Your task to perform on an android device: turn off sleep mode Image 0: 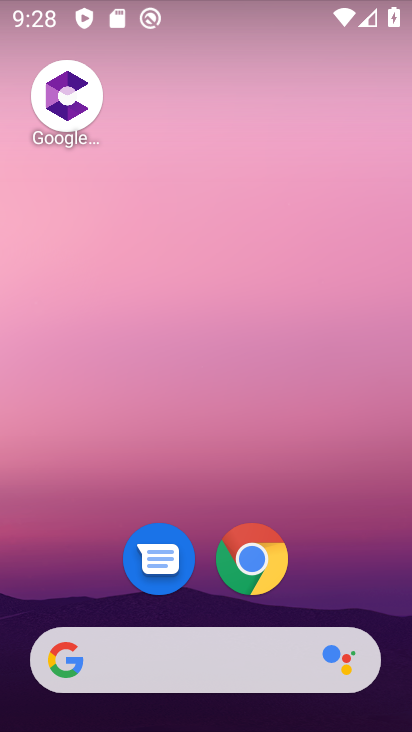
Step 0: drag from (57, 606) to (218, 106)
Your task to perform on an android device: turn off sleep mode Image 1: 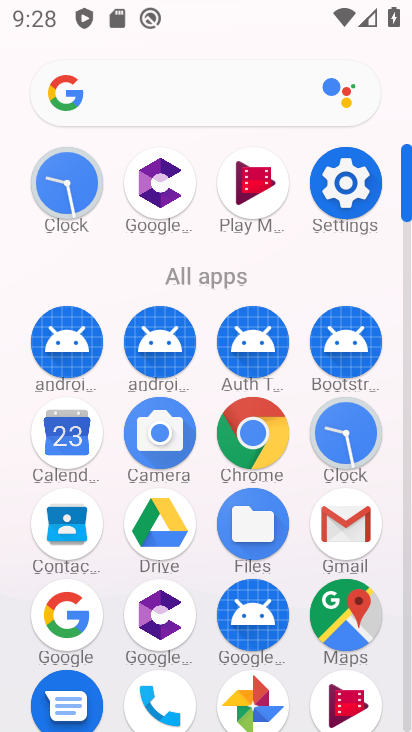
Step 1: drag from (165, 660) to (218, 272)
Your task to perform on an android device: turn off sleep mode Image 2: 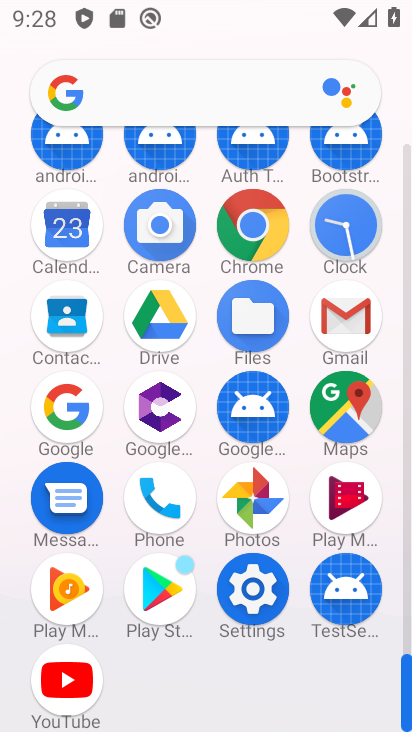
Step 2: click (246, 587)
Your task to perform on an android device: turn off sleep mode Image 3: 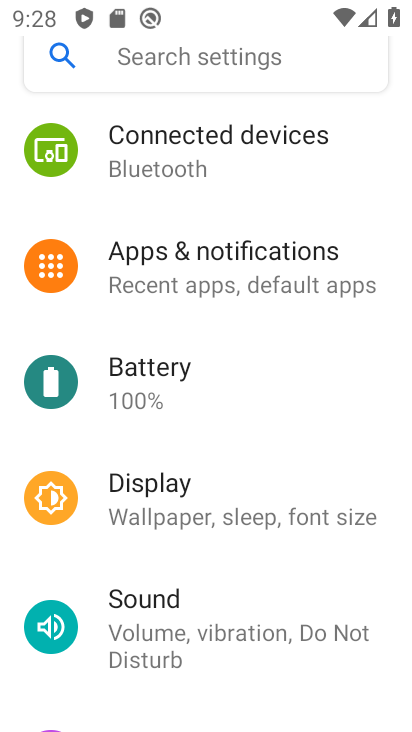
Step 3: click (195, 492)
Your task to perform on an android device: turn off sleep mode Image 4: 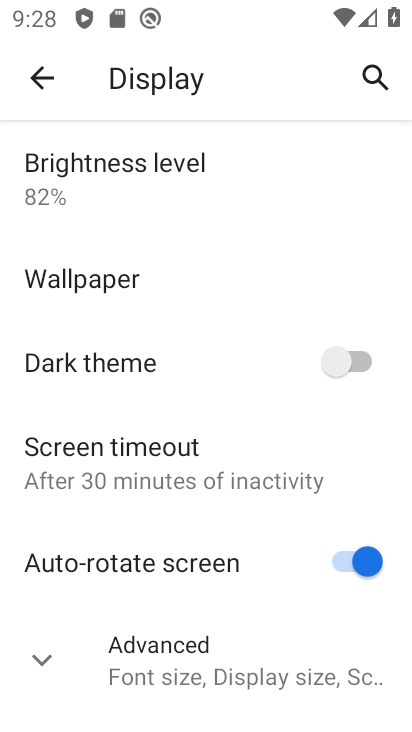
Step 4: drag from (190, 626) to (297, 287)
Your task to perform on an android device: turn off sleep mode Image 5: 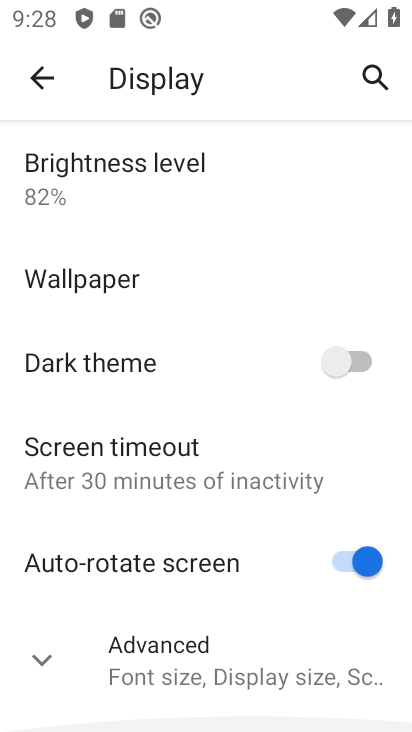
Step 5: click (238, 652)
Your task to perform on an android device: turn off sleep mode Image 6: 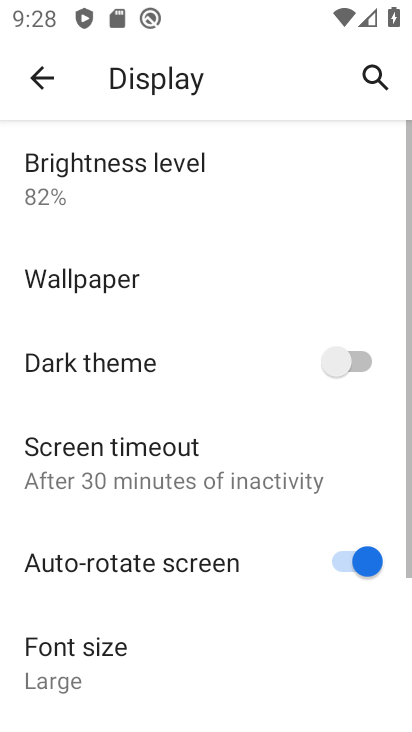
Step 6: task complete